Your task to perform on an android device: Go to eBay Image 0: 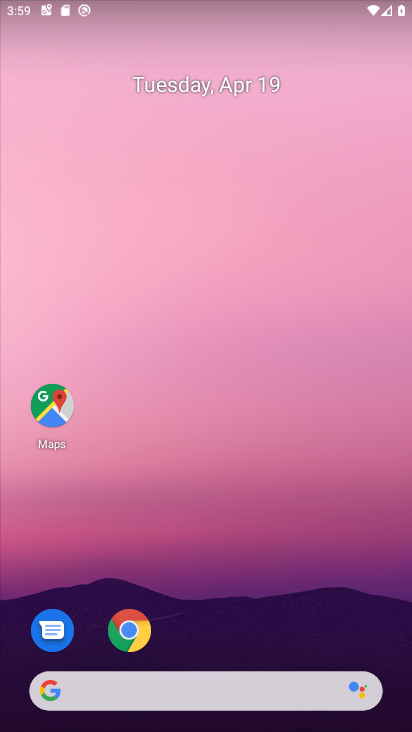
Step 0: press home button
Your task to perform on an android device: Go to eBay Image 1: 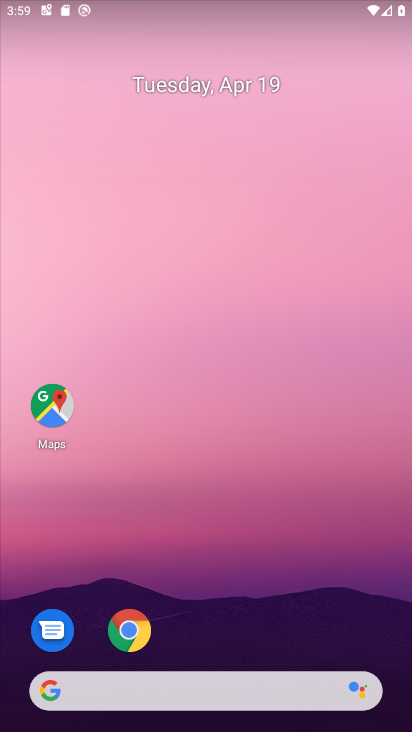
Step 1: click (137, 623)
Your task to perform on an android device: Go to eBay Image 2: 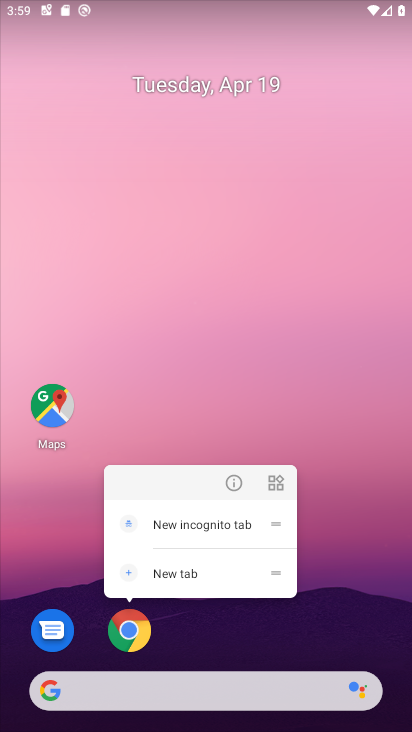
Step 2: click (138, 636)
Your task to perform on an android device: Go to eBay Image 3: 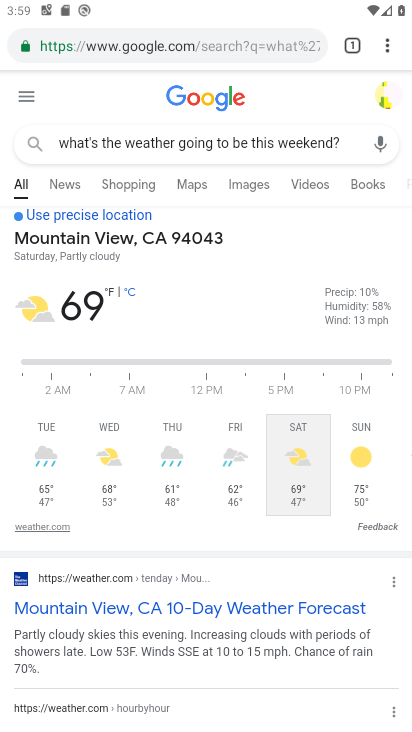
Step 3: click (159, 43)
Your task to perform on an android device: Go to eBay Image 4: 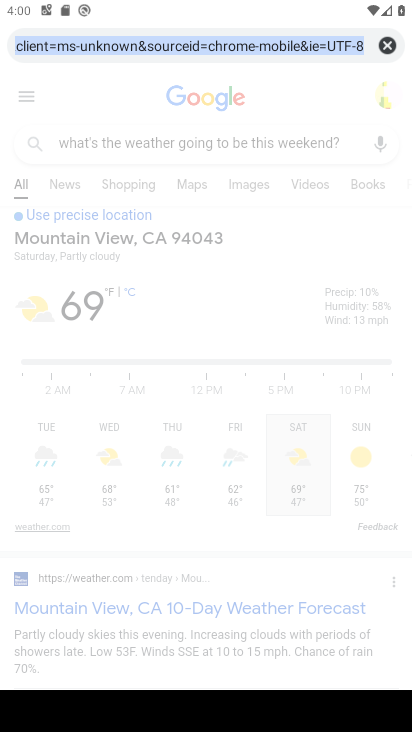
Step 4: type "ebay"
Your task to perform on an android device: Go to eBay Image 5: 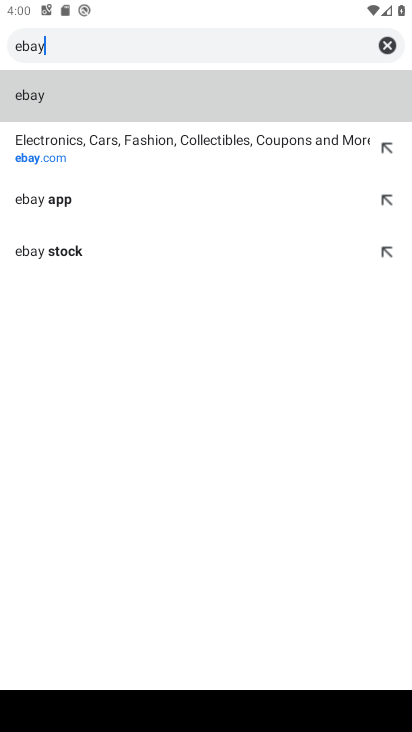
Step 5: click (64, 154)
Your task to perform on an android device: Go to eBay Image 6: 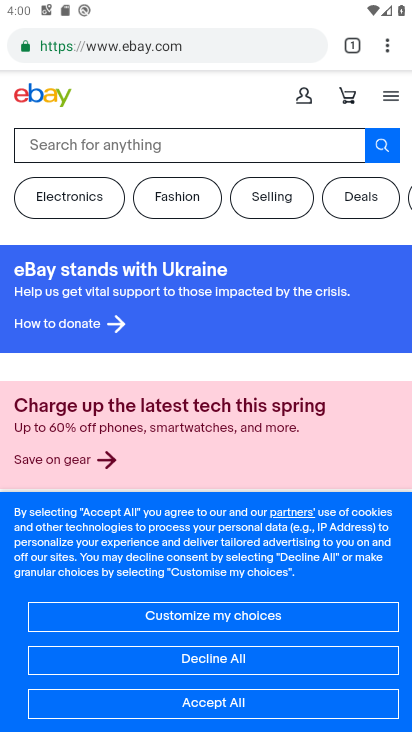
Step 6: task complete